Your task to perform on an android device: Open Google Chrome Image 0: 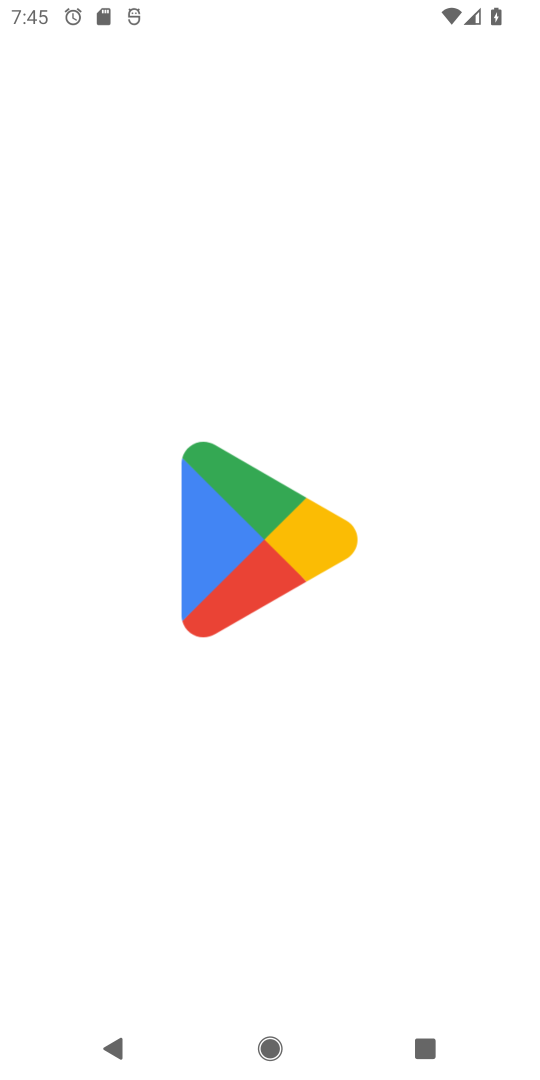
Step 0: press home button
Your task to perform on an android device: Open Google Chrome Image 1: 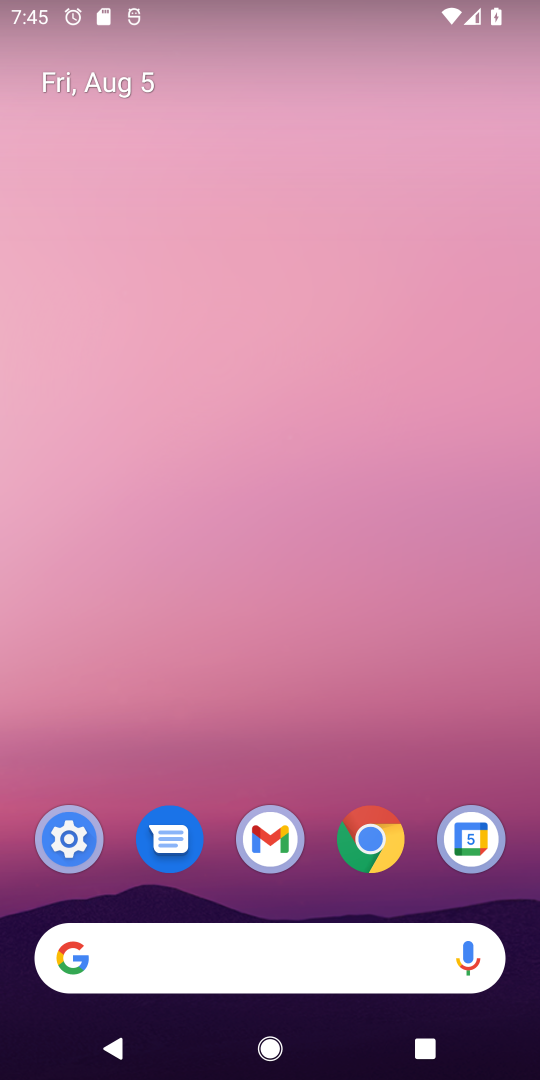
Step 1: drag from (371, 824) to (321, 824)
Your task to perform on an android device: Open Google Chrome Image 2: 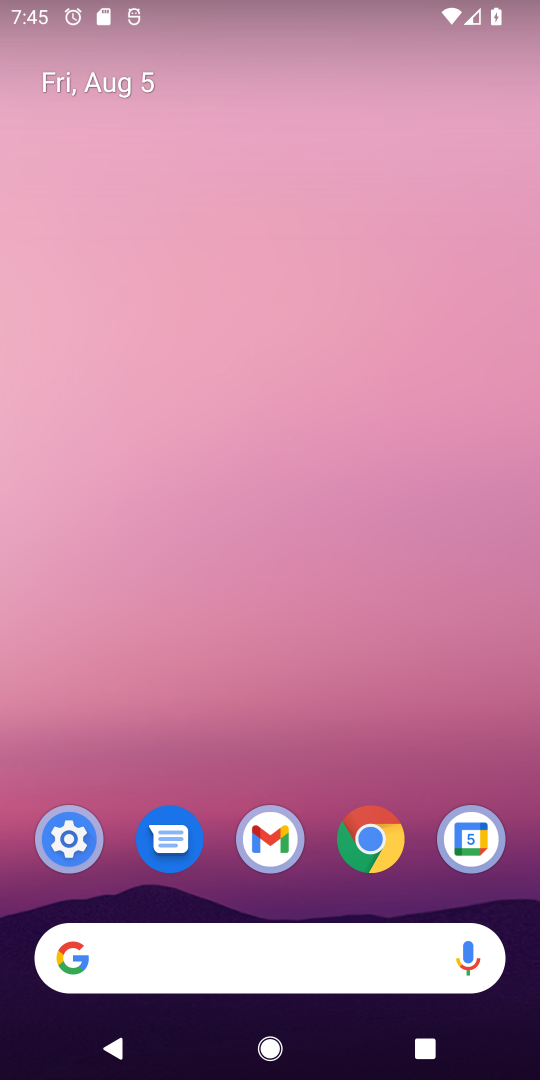
Step 2: click (337, 828)
Your task to perform on an android device: Open Google Chrome Image 3: 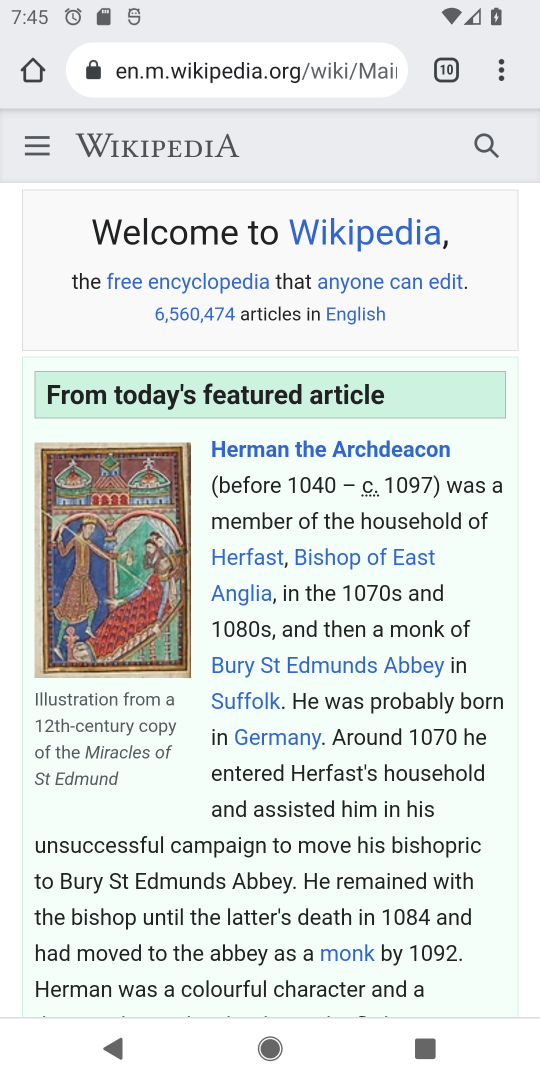
Step 3: task complete